Your task to perform on an android device: Is it going to rain tomorrow? Image 0: 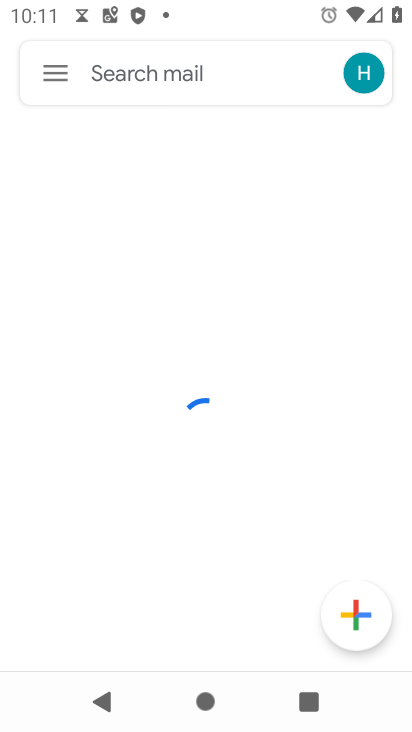
Step 0: press home button
Your task to perform on an android device: Is it going to rain tomorrow? Image 1: 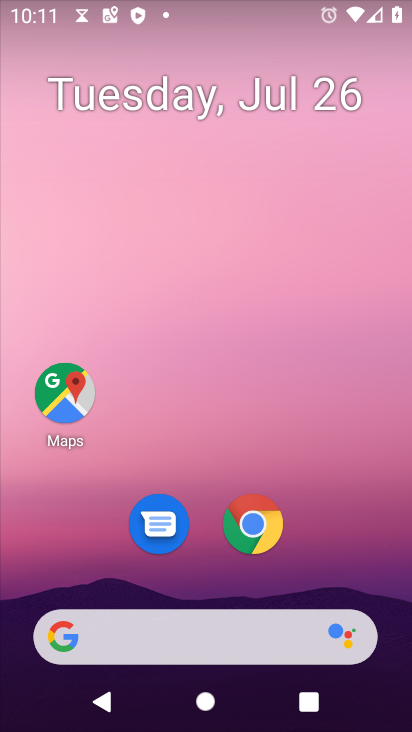
Step 1: click (172, 644)
Your task to perform on an android device: Is it going to rain tomorrow? Image 2: 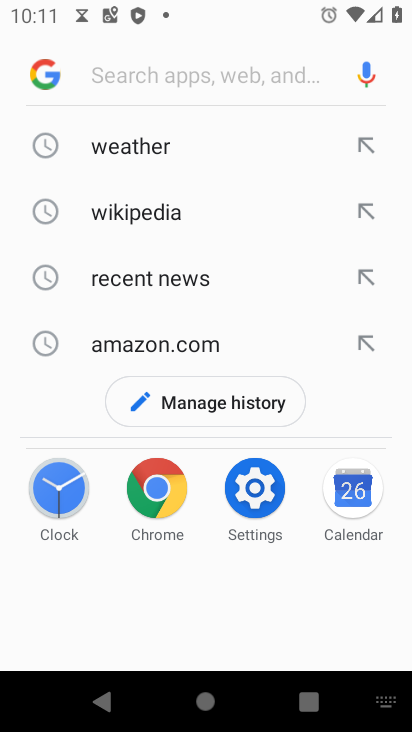
Step 2: click (153, 147)
Your task to perform on an android device: Is it going to rain tomorrow? Image 3: 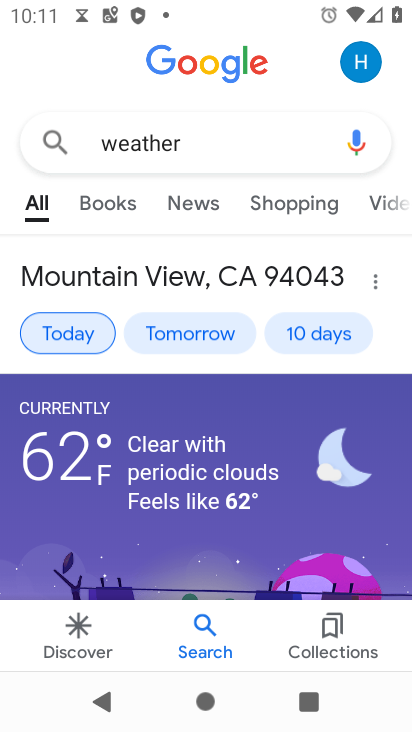
Step 3: click (197, 328)
Your task to perform on an android device: Is it going to rain tomorrow? Image 4: 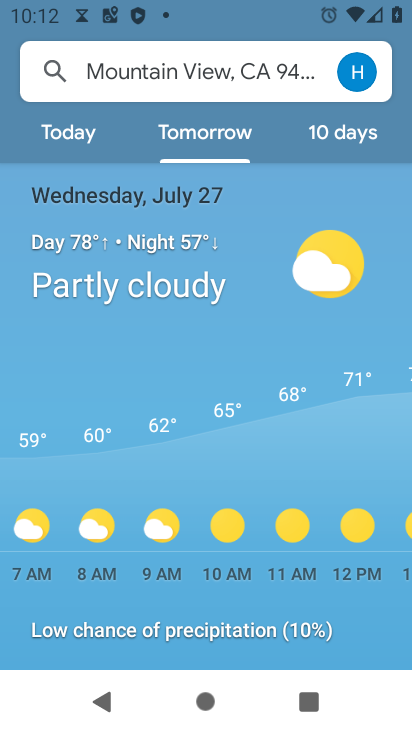
Step 4: task complete